Your task to perform on an android device: turn off improve location accuracy Image 0: 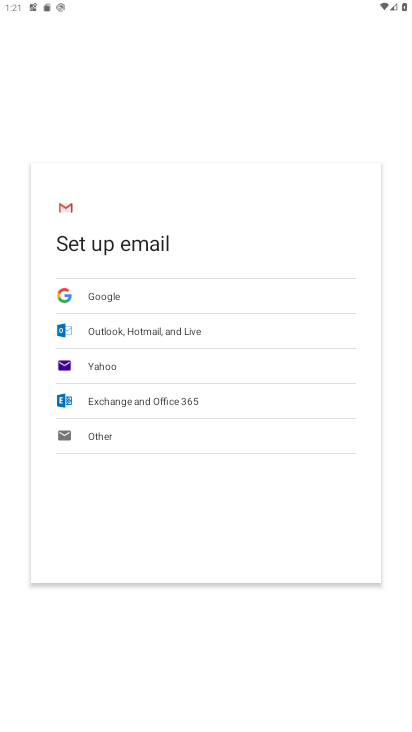
Step 0: press home button
Your task to perform on an android device: turn off improve location accuracy Image 1: 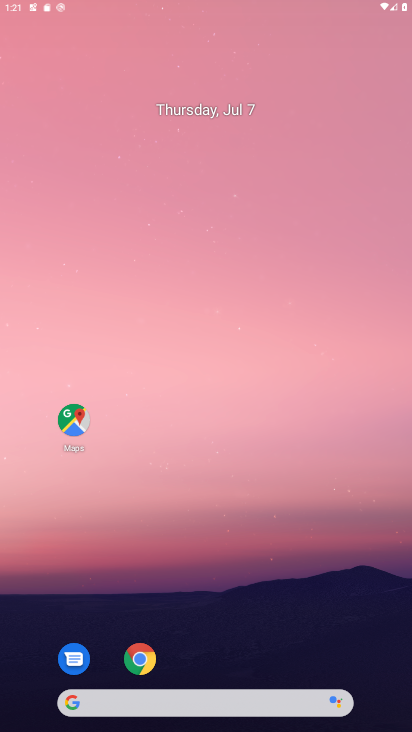
Step 1: drag from (191, 573) to (246, 29)
Your task to perform on an android device: turn off improve location accuracy Image 2: 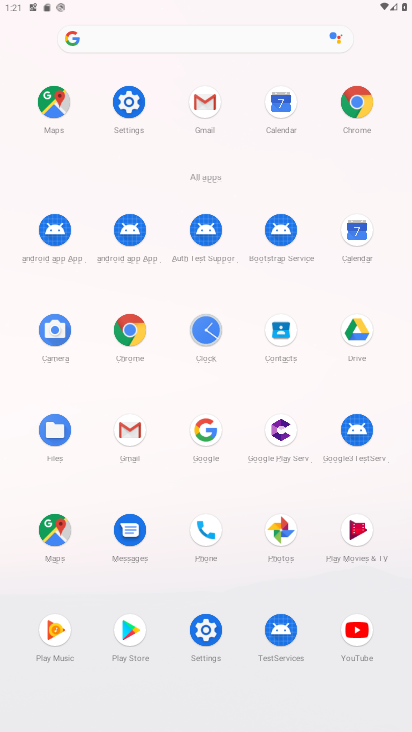
Step 2: click (204, 631)
Your task to perform on an android device: turn off improve location accuracy Image 3: 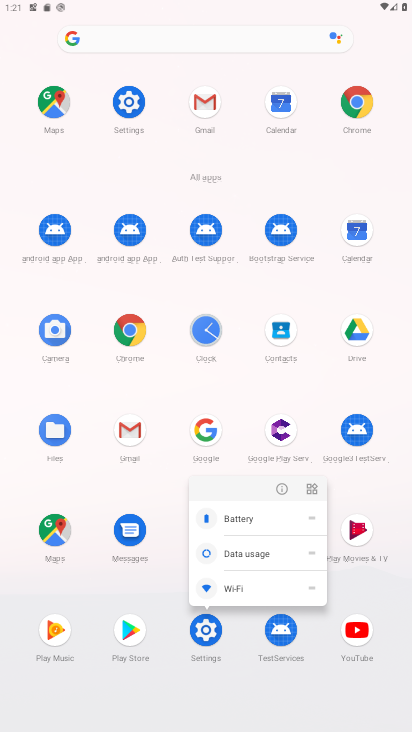
Step 3: click (283, 493)
Your task to perform on an android device: turn off improve location accuracy Image 4: 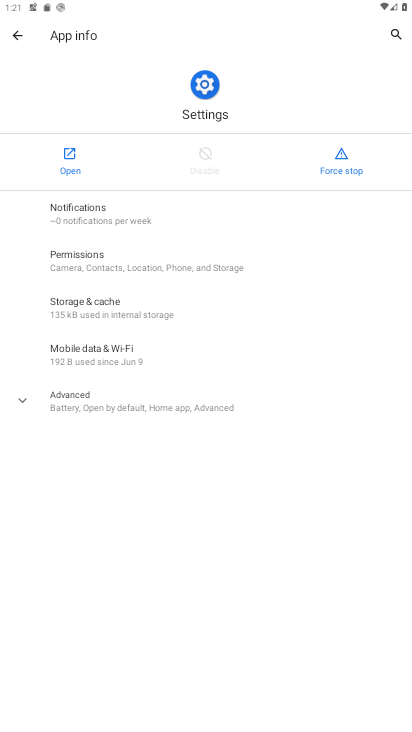
Step 4: click (68, 153)
Your task to perform on an android device: turn off improve location accuracy Image 5: 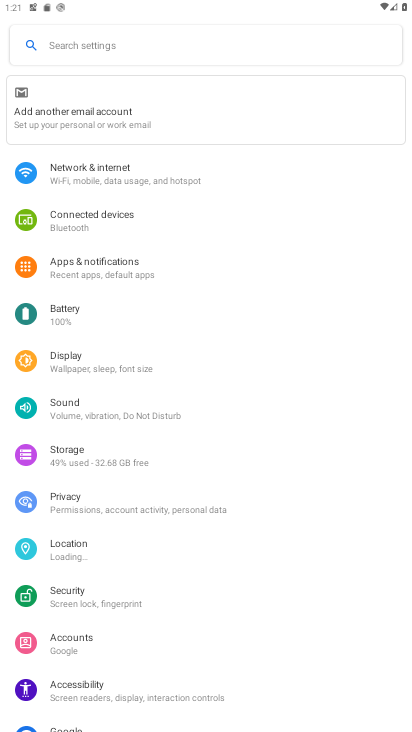
Step 5: drag from (163, 575) to (217, 212)
Your task to perform on an android device: turn off improve location accuracy Image 6: 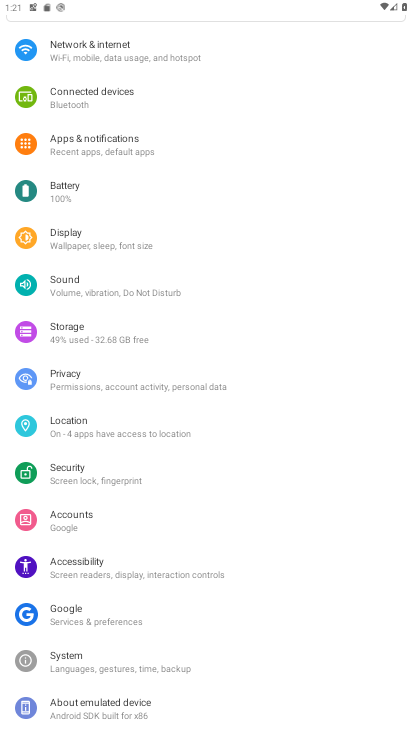
Step 6: click (108, 427)
Your task to perform on an android device: turn off improve location accuracy Image 7: 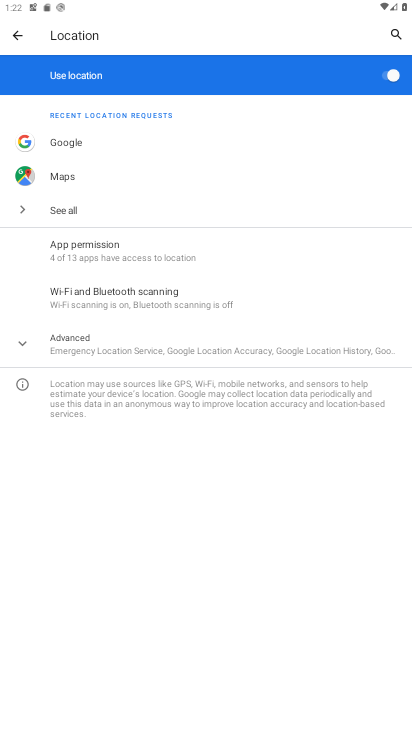
Step 7: click (121, 344)
Your task to perform on an android device: turn off improve location accuracy Image 8: 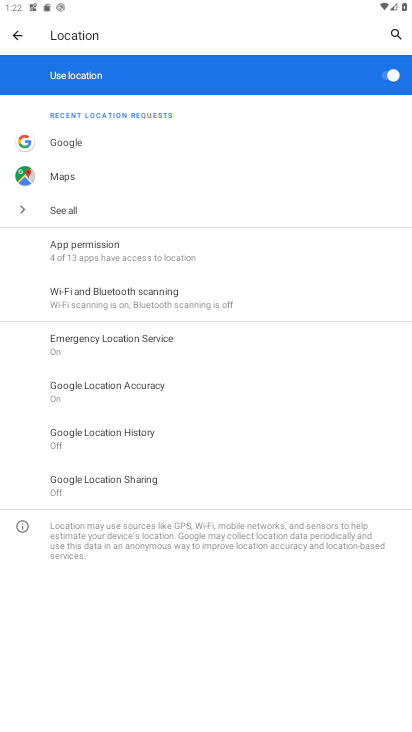
Step 8: click (176, 386)
Your task to perform on an android device: turn off improve location accuracy Image 9: 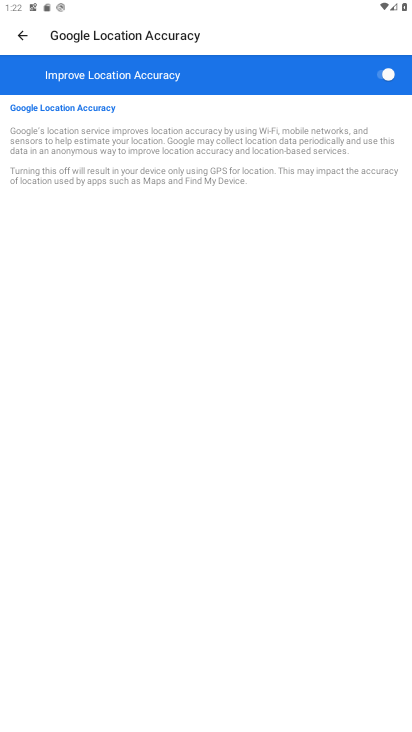
Step 9: click (387, 88)
Your task to perform on an android device: turn off improve location accuracy Image 10: 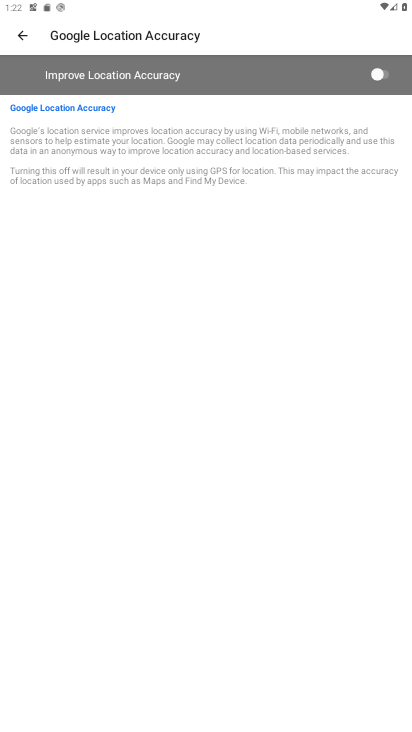
Step 10: task complete